Your task to perform on an android device: Open Google Chrome and open the bookmarks view Image 0: 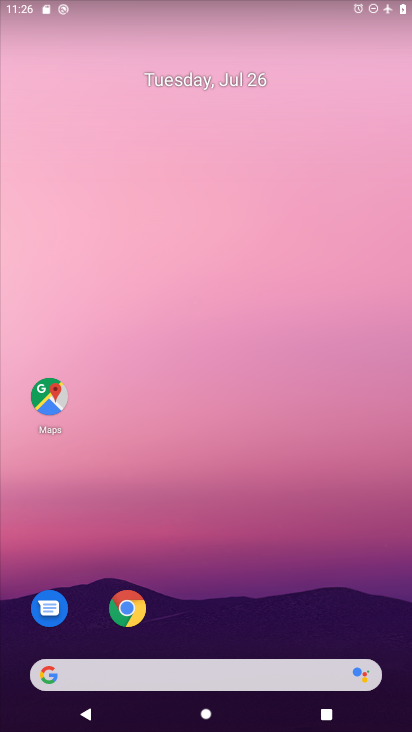
Step 0: drag from (275, 591) to (250, 71)
Your task to perform on an android device: Open Google Chrome and open the bookmarks view Image 1: 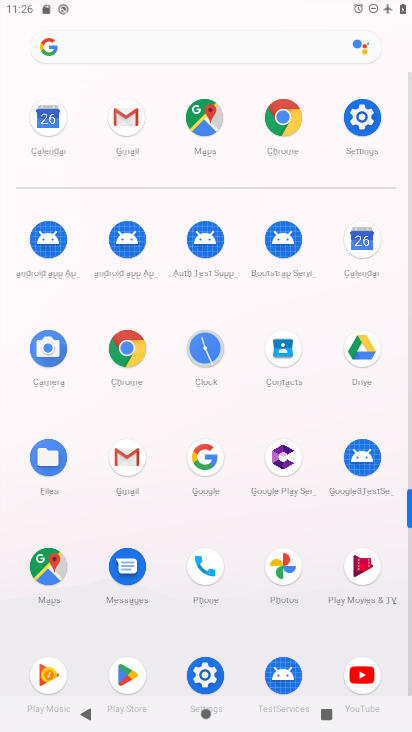
Step 1: click (281, 120)
Your task to perform on an android device: Open Google Chrome and open the bookmarks view Image 2: 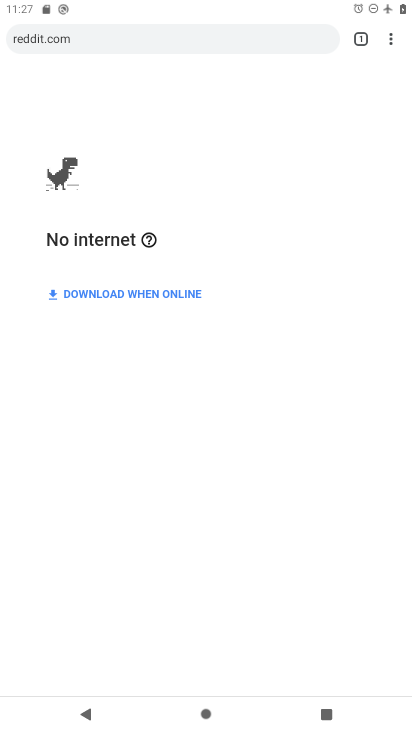
Step 2: task complete